Your task to perform on an android device: Open Yahoo.com Image 0: 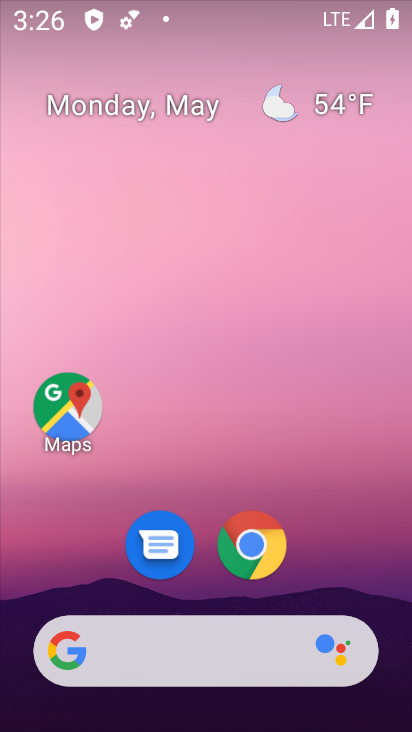
Step 0: click (246, 540)
Your task to perform on an android device: Open Yahoo.com Image 1: 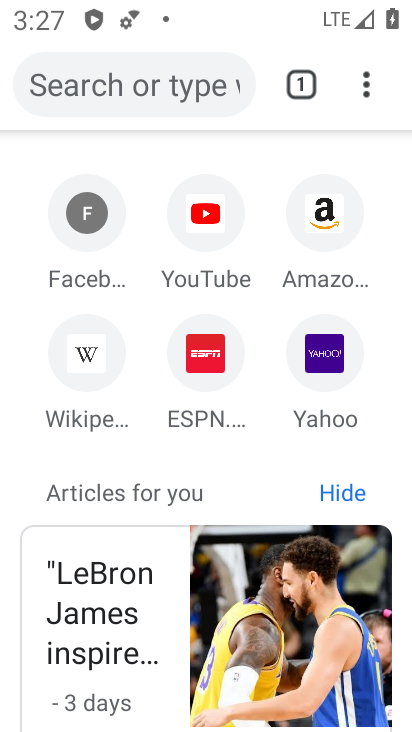
Step 1: click (105, 83)
Your task to perform on an android device: Open Yahoo.com Image 2: 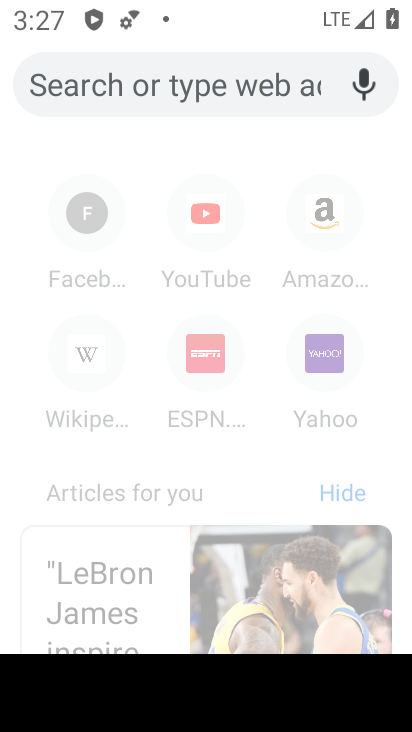
Step 2: type "yahoo"
Your task to perform on an android device: Open Yahoo.com Image 3: 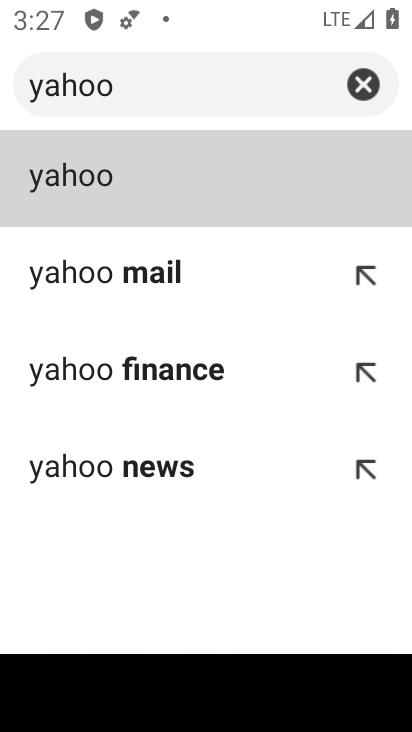
Step 3: click (90, 179)
Your task to perform on an android device: Open Yahoo.com Image 4: 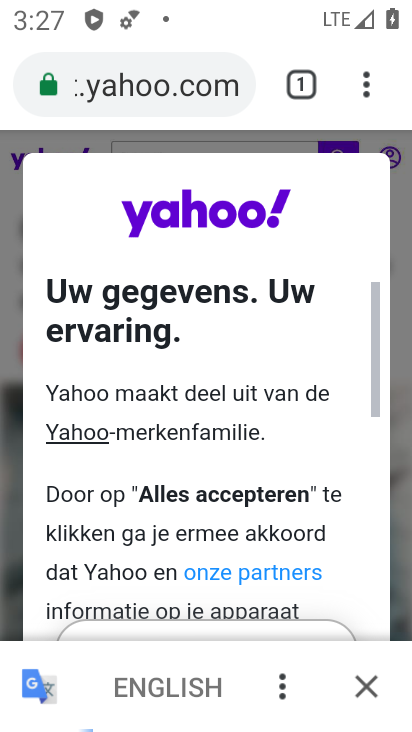
Step 4: task complete